Your task to perform on an android device: See recent photos Image 0: 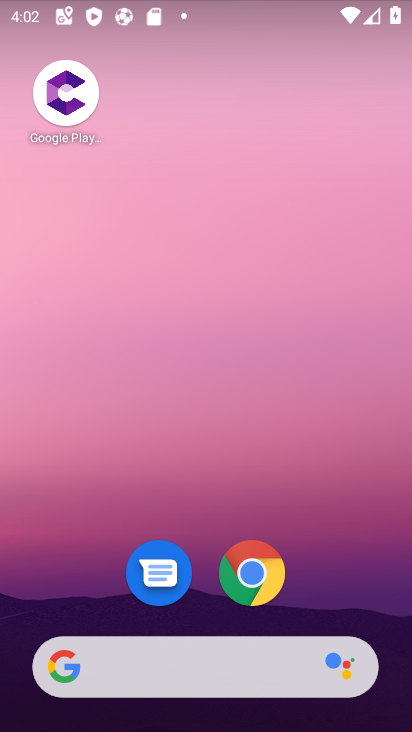
Step 0: drag from (363, 555) to (325, 7)
Your task to perform on an android device: See recent photos Image 1: 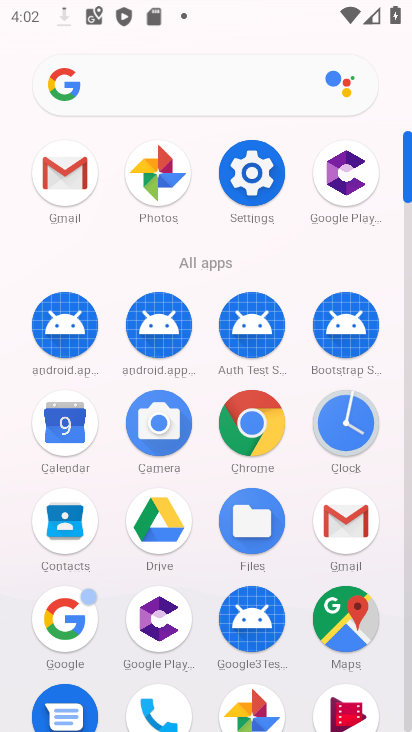
Step 1: click (146, 169)
Your task to perform on an android device: See recent photos Image 2: 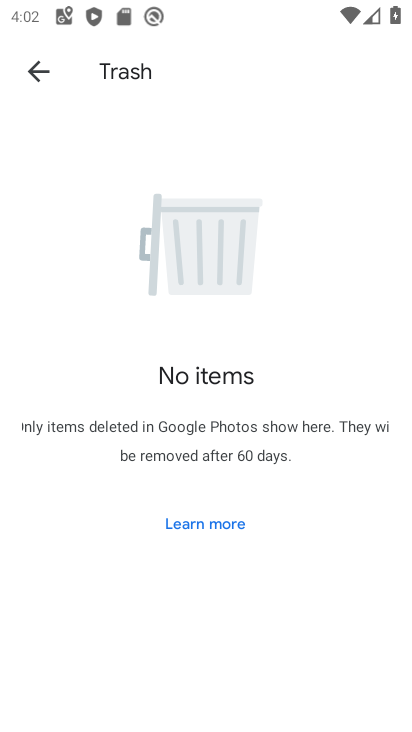
Step 2: drag from (241, 690) to (216, 474)
Your task to perform on an android device: See recent photos Image 3: 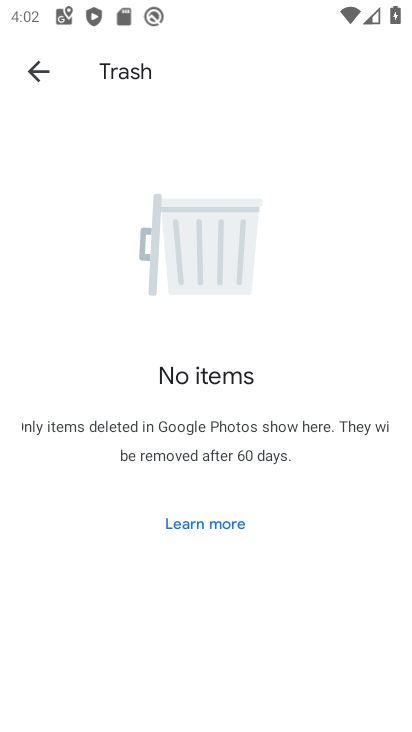
Step 3: click (29, 65)
Your task to perform on an android device: See recent photos Image 4: 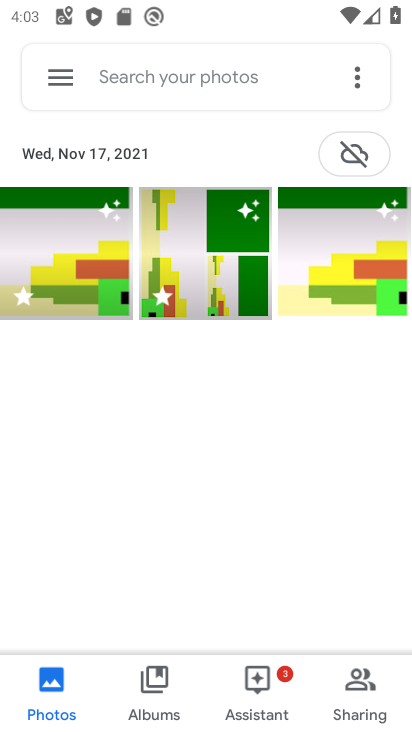
Step 4: task complete